Your task to perform on an android device: How do I get to the nearest Chipotle? Image 0: 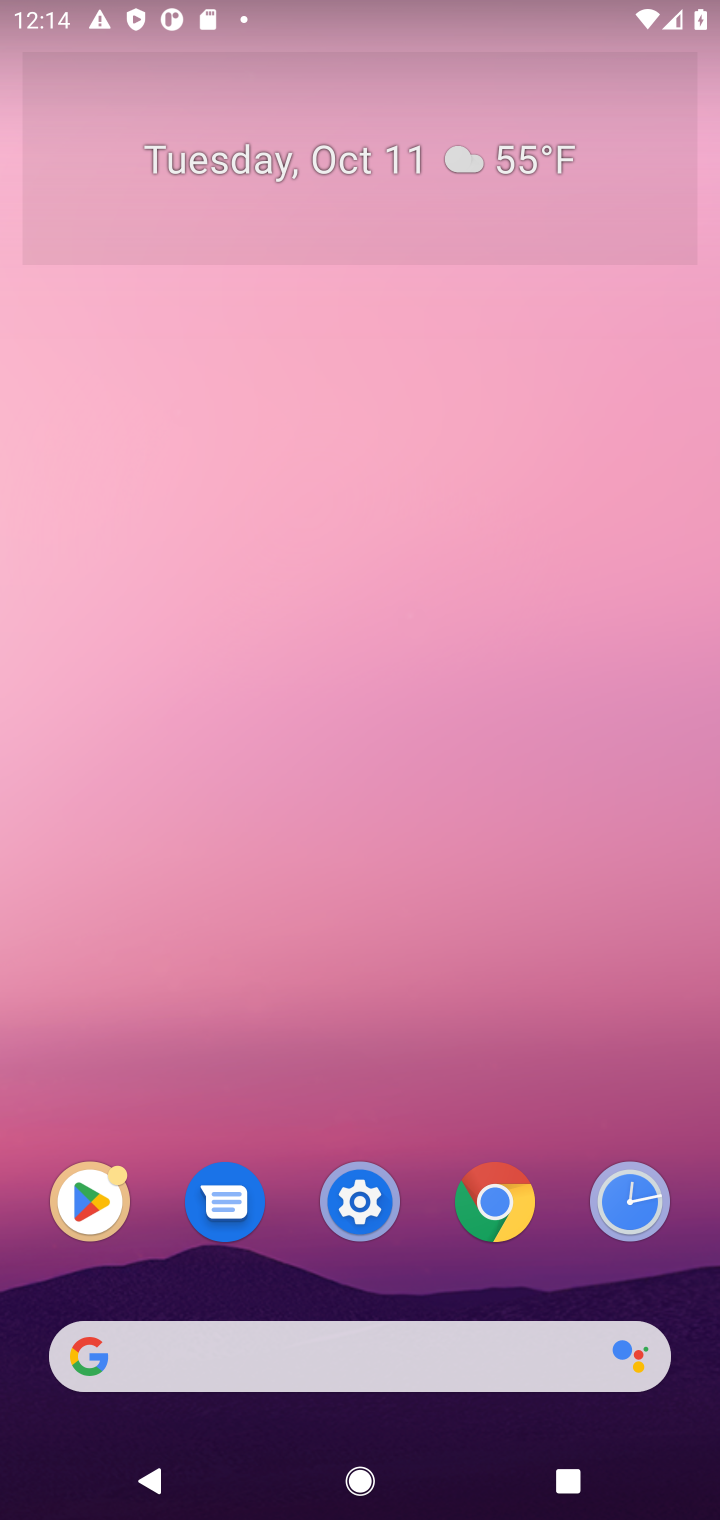
Step 0: click (97, 1356)
Your task to perform on an android device: How do I get to the nearest Chipotle? Image 1: 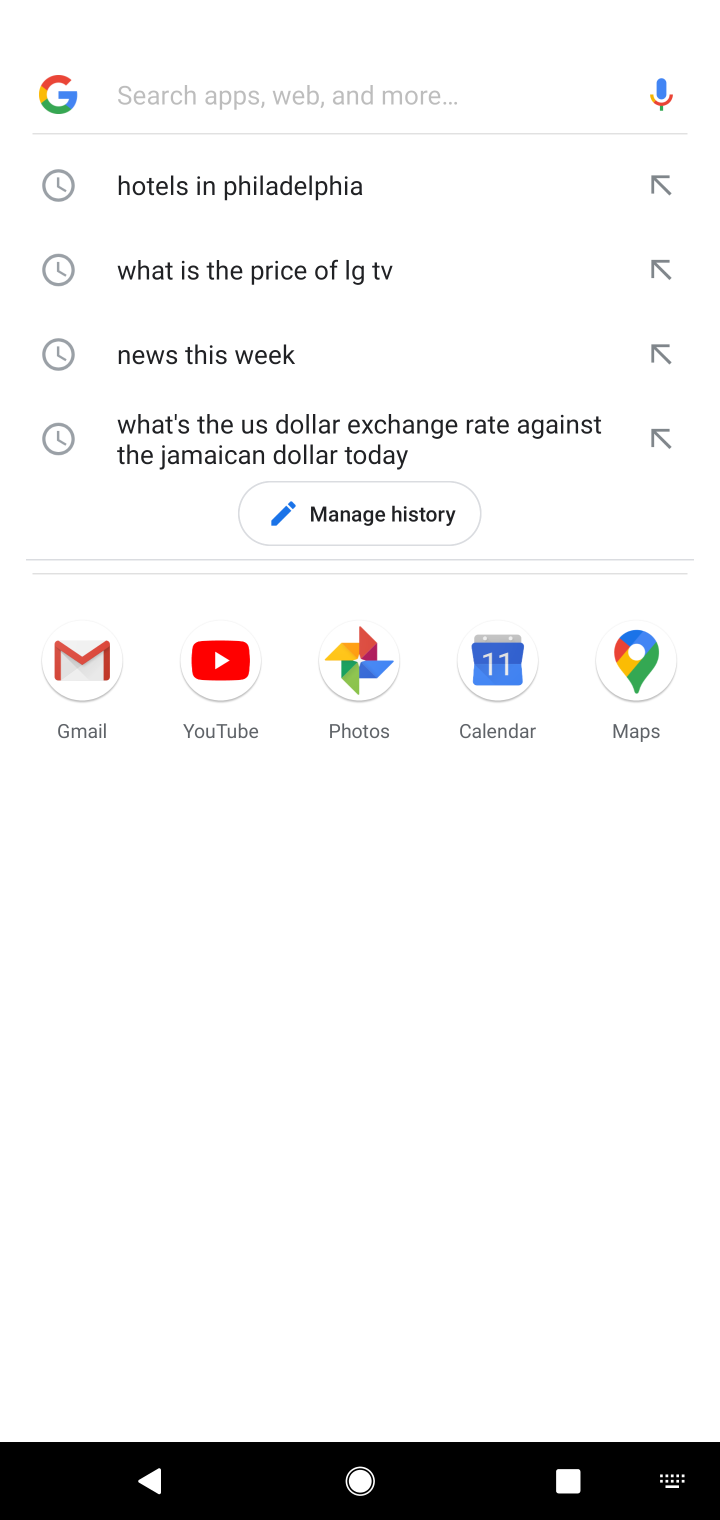
Step 1: type "How do I get to the nearest Chipotle?"
Your task to perform on an android device: How do I get to the nearest Chipotle? Image 2: 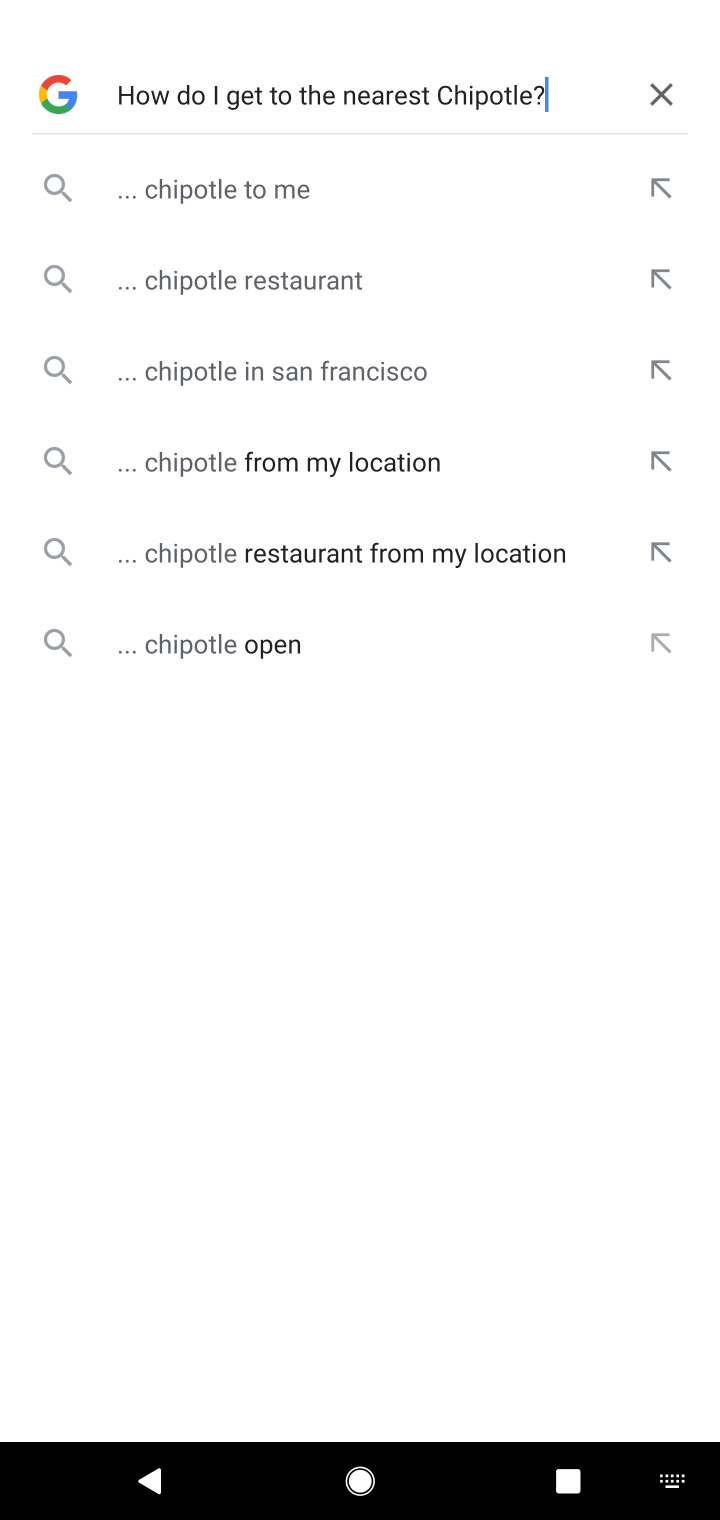
Step 2: task complete